Your task to perform on an android device: open app "Adobe Express: Graphic Design" (install if not already installed) and enter user name: "deliveries@gmail.com" and password: "regimentation" Image 0: 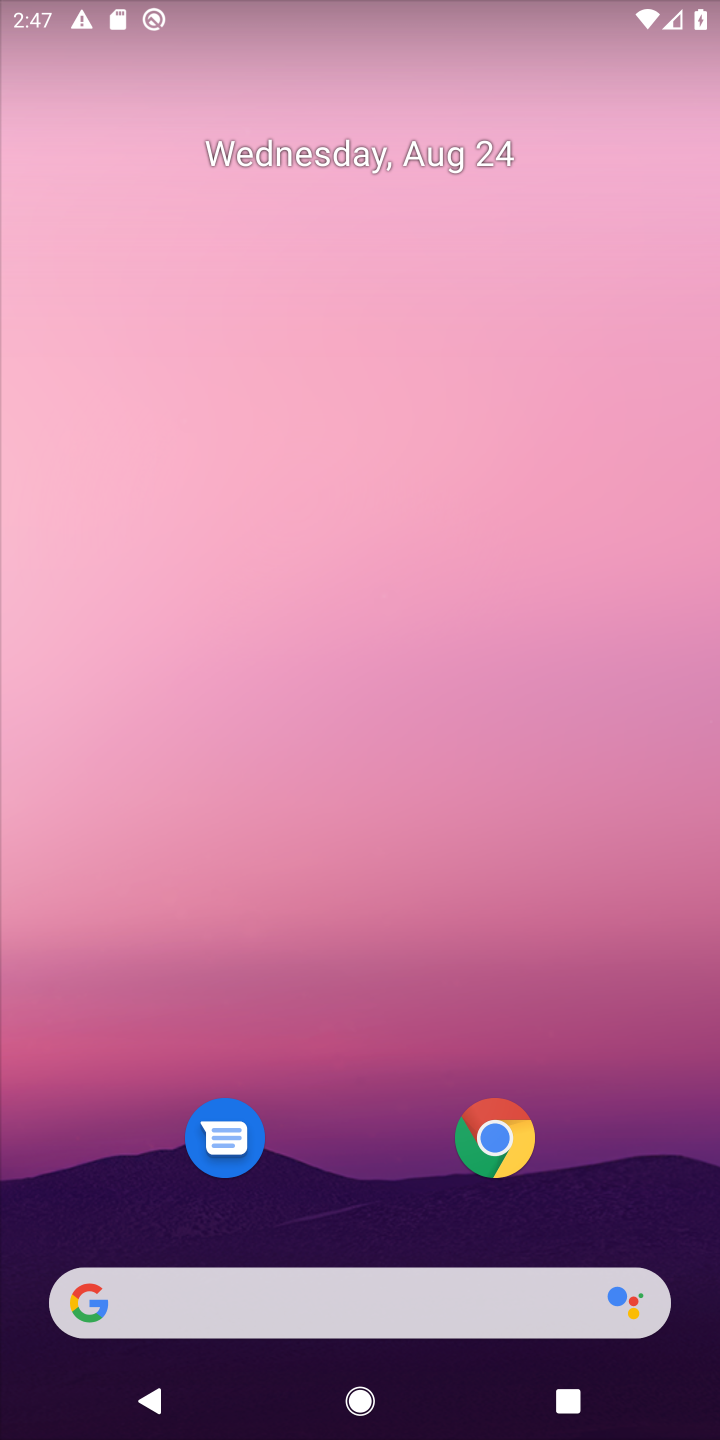
Step 0: drag from (301, 1236) to (332, 2)
Your task to perform on an android device: open app "Adobe Express: Graphic Design" (install if not already installed) and enter user name: "deliveries@gmail.com" and password: "regimentation" Image 1: 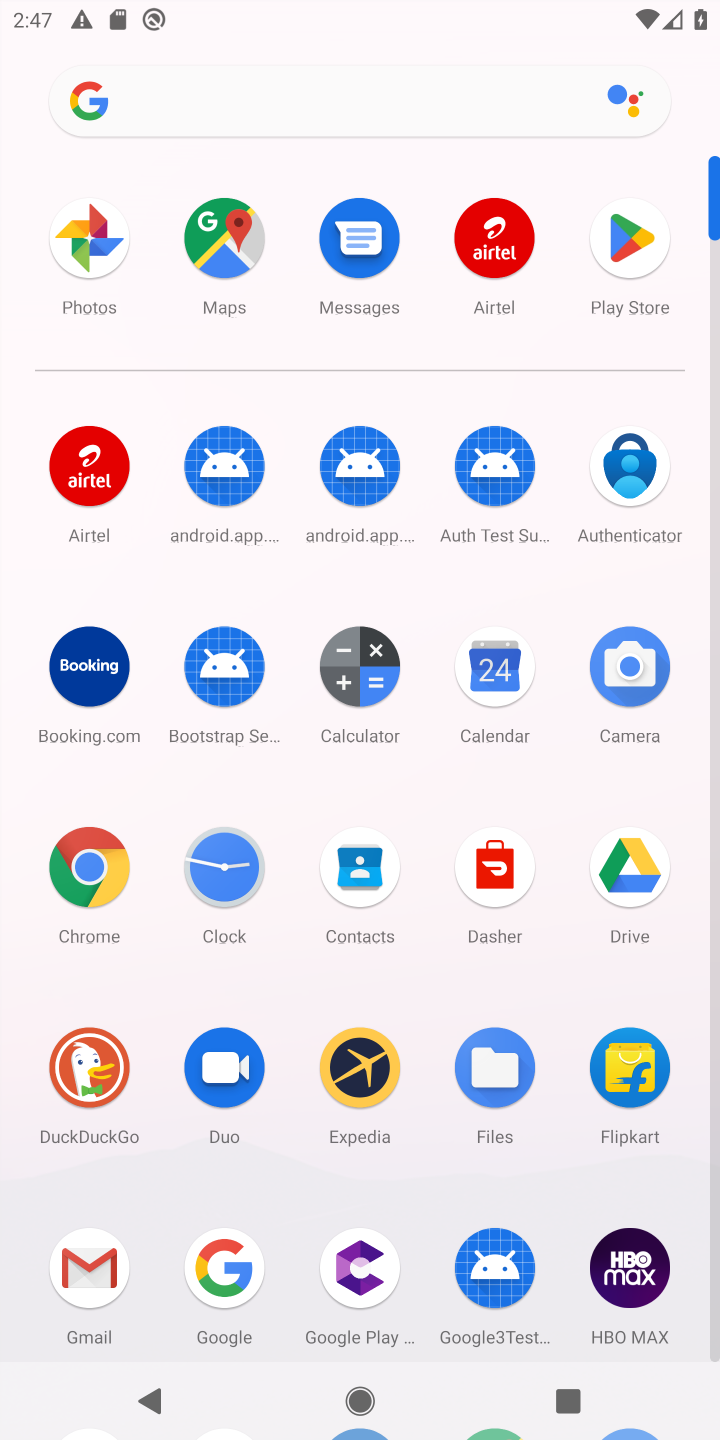
Step 1: click (621, 222)
Your task to perform on an android device: open app "Adobe Express: Graphic Design" (install if not already installed) and enter user name: "deliveries@gmail.com" and password: "regimentation" Image 2: 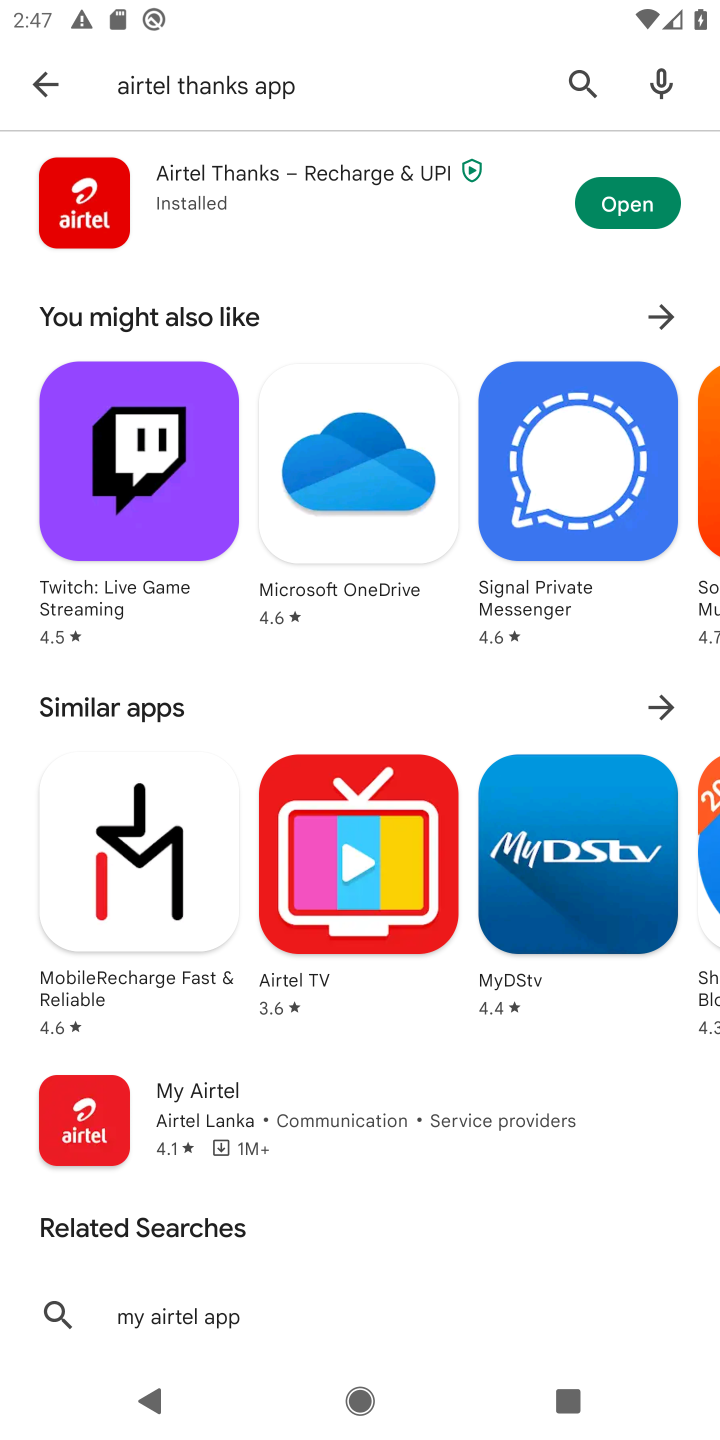
Step 2: click (576, 80)
Your task to perform on an android device: open app "Adobe Express: Graphic Design" (install if not already installed) and enter user name: "deliveries@gmail.com" and password: "regimentation" Image 3: 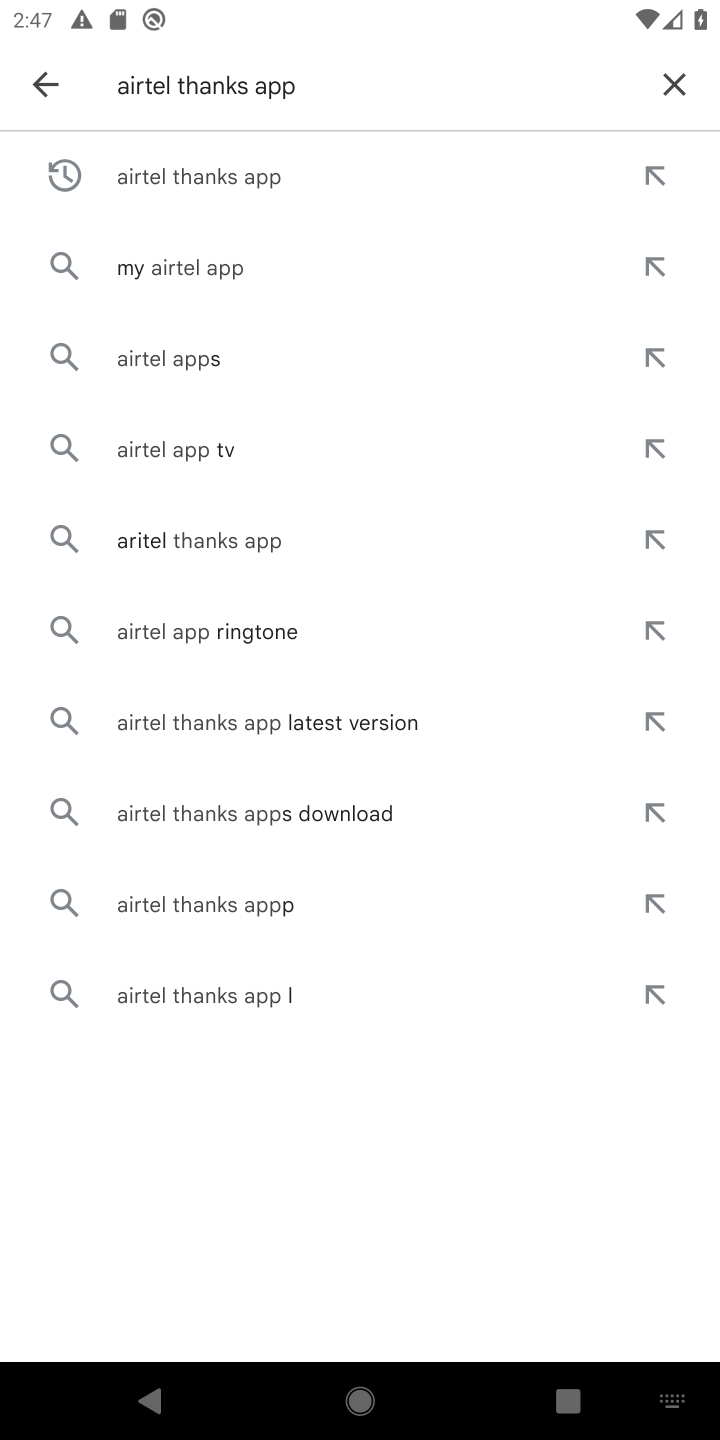
Step 3: click (681, 75)
Your task to perform on an android device: open app "Adobe Express: Graphic Design" (install if not already installed) and enter user name: "deliveries@gmail.com" and password: "regimentation" Image 4: 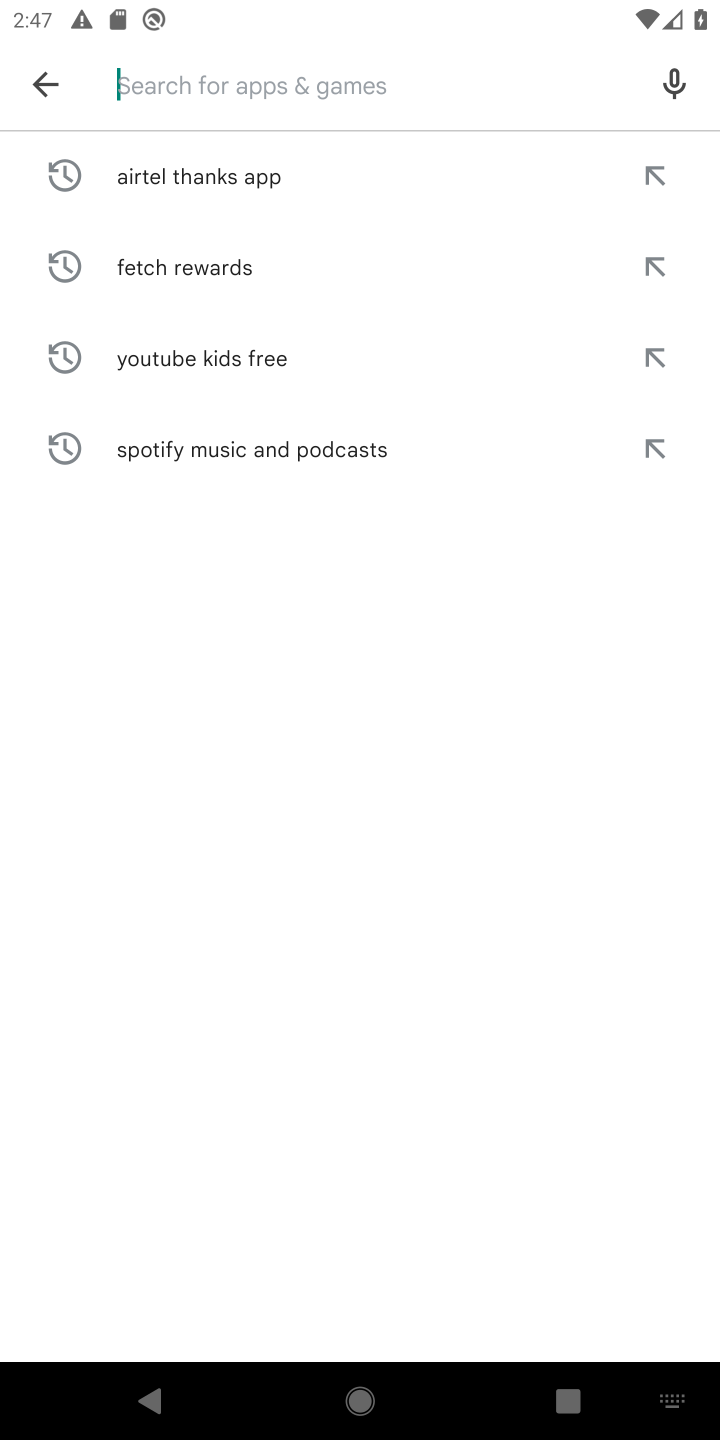
Step 4: type "Adobe Express: Graphic Design"
Your task to perform on an android device: open app "Adobe Express: Graphic Design" (install if not already installed) and enter user name: "deliveries@gmail.com" and password: "regimentation" Image 5: 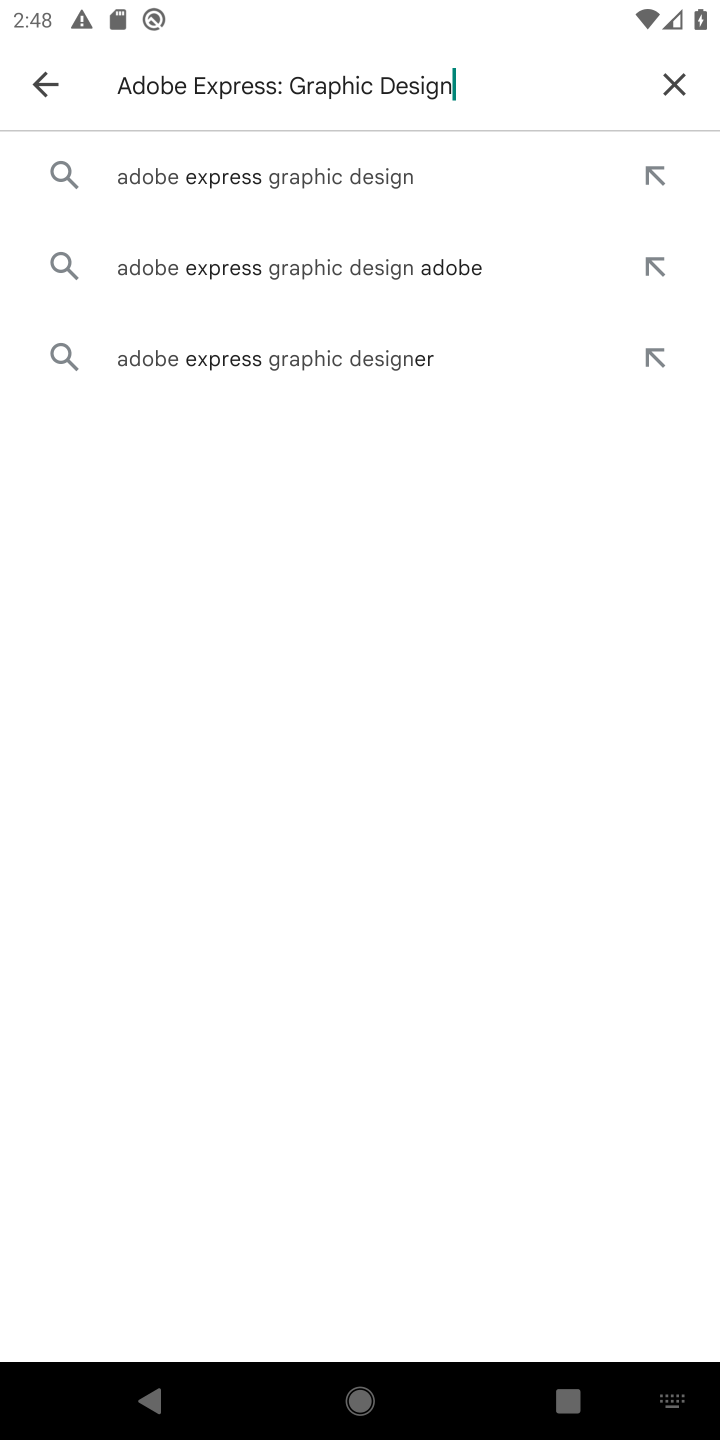
Step 5: click (351, 173)
Your task to perform on an android device: open app "Adobe Express: Graphic Design" (install if not already installed) and enter user name: "deliveries@gmail.com" and password: "regimentation" Image 6: 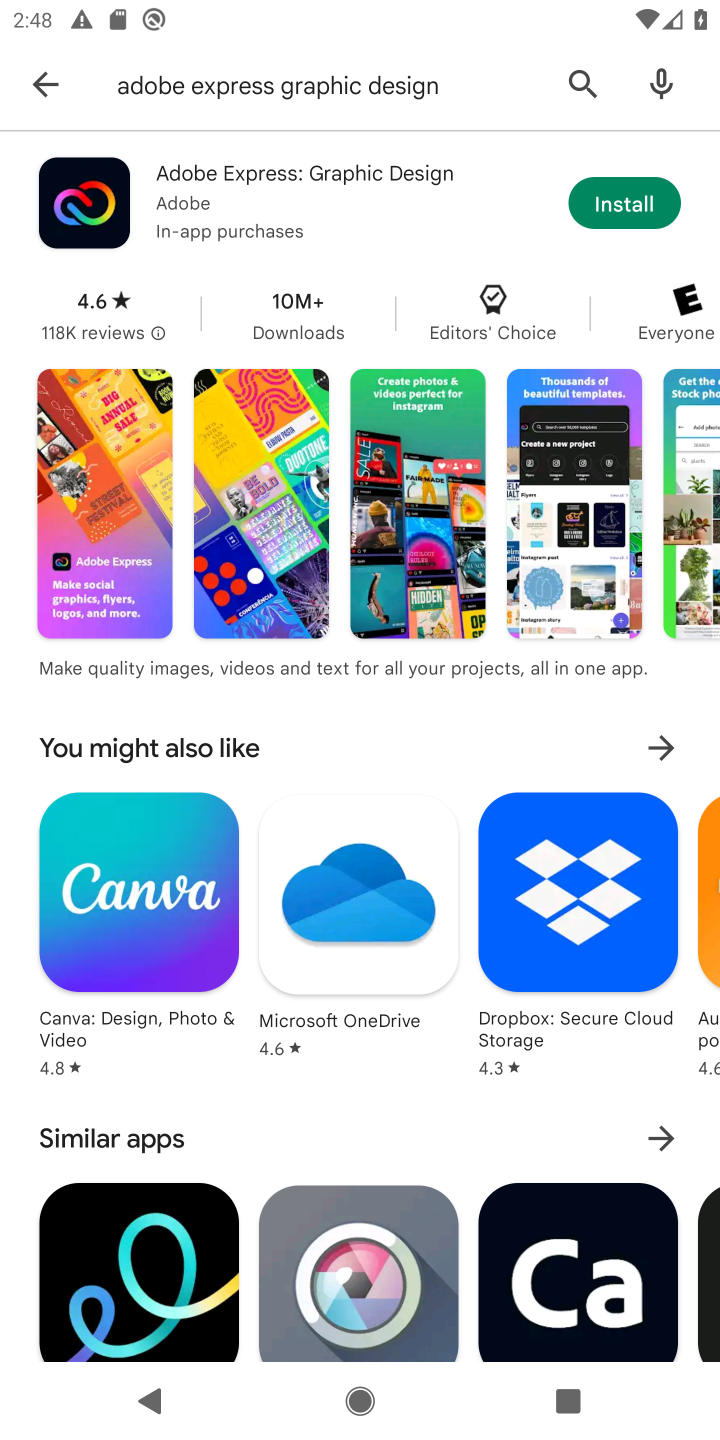
Step 6: click (624, 191)
Your task to perform on an android device: open app "Adobe Express: Graphic Design" (install if not already installed) and enter user name: "deliveries@gmail.com" and password: "regimentation" Image 7: 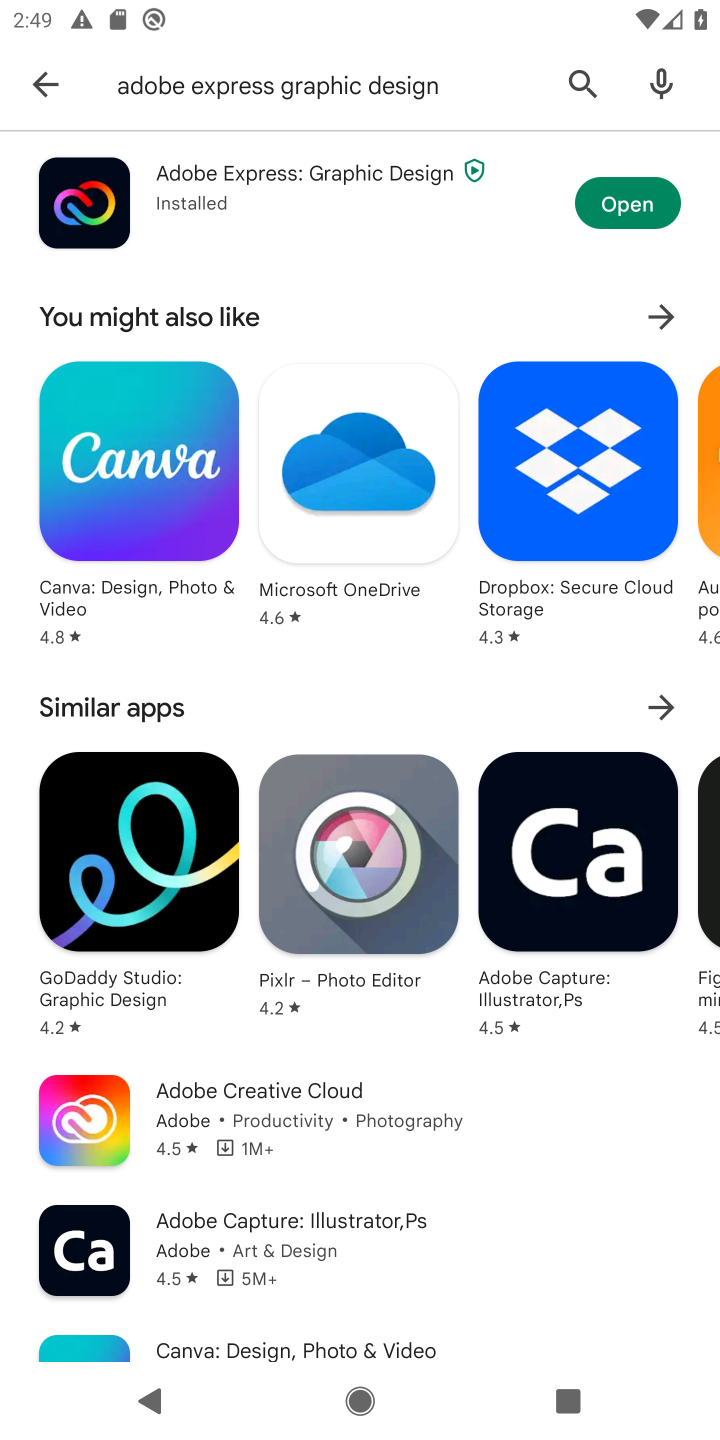
Step 7: click (622, 201)
Your task to perform on an android device: open app "Adobe Express: Graphic Design" (install if not already installed) and enter user name: "deliveries@gmail.com" and password: "regimentation" Image 8: 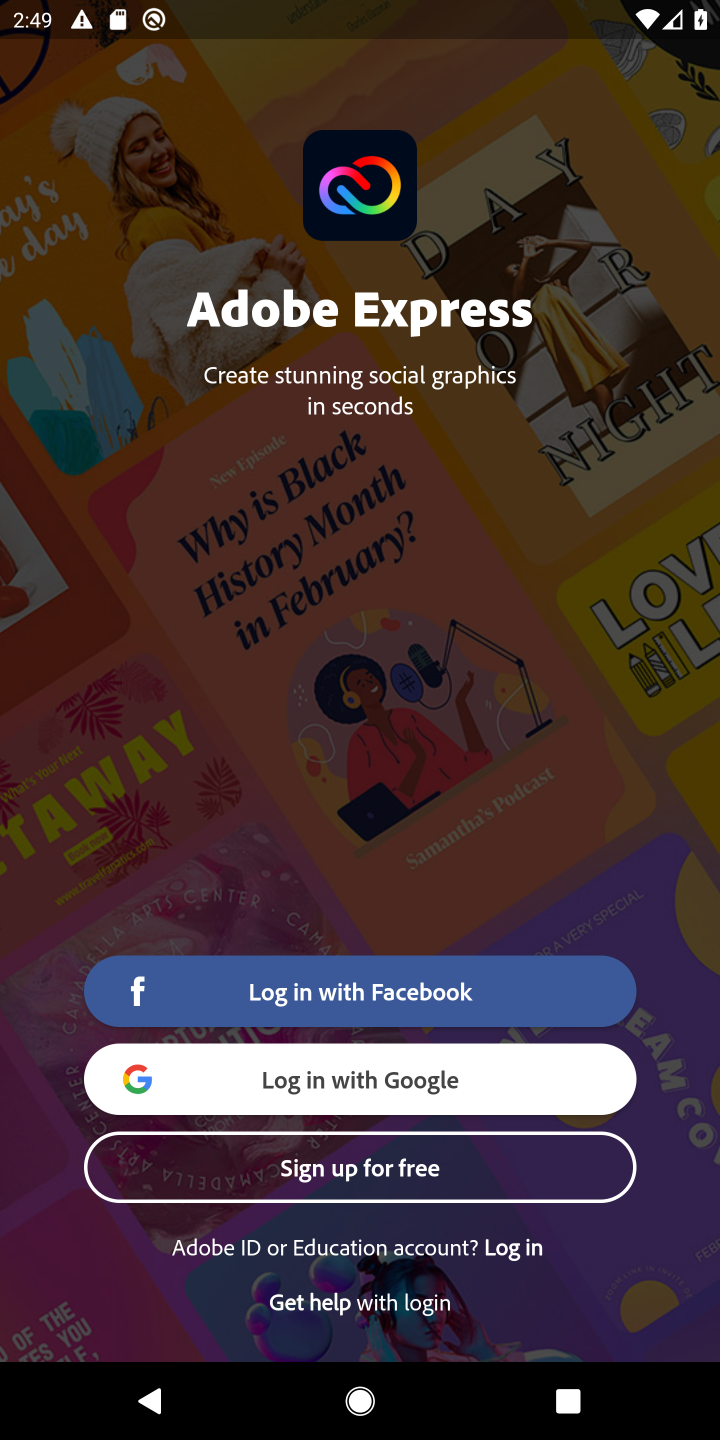
Step 8: click (370, 1073)
Your task to perform on an android device: open app "Adobe Express: Graphic Design" (install if not already installed) and enter user name: "deliveries@gmail.com" and password: "regimentation" Image 9: 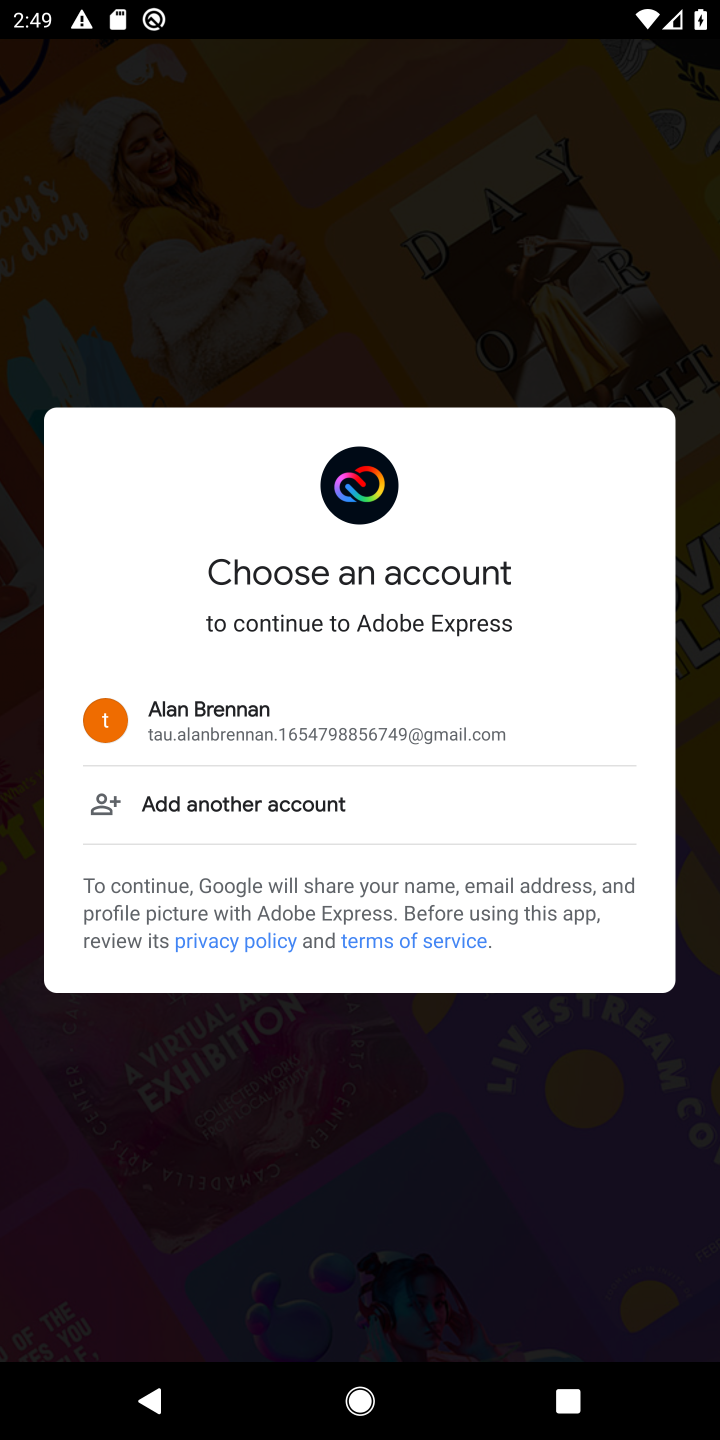
Step 9: click (349, 804)
Your task to perform on an android device: open app "Adobe Express: Graphic Design" (install if not already installed) and enter user name: "deliveries@gmail.com" and password: "regimentation" Image 10: 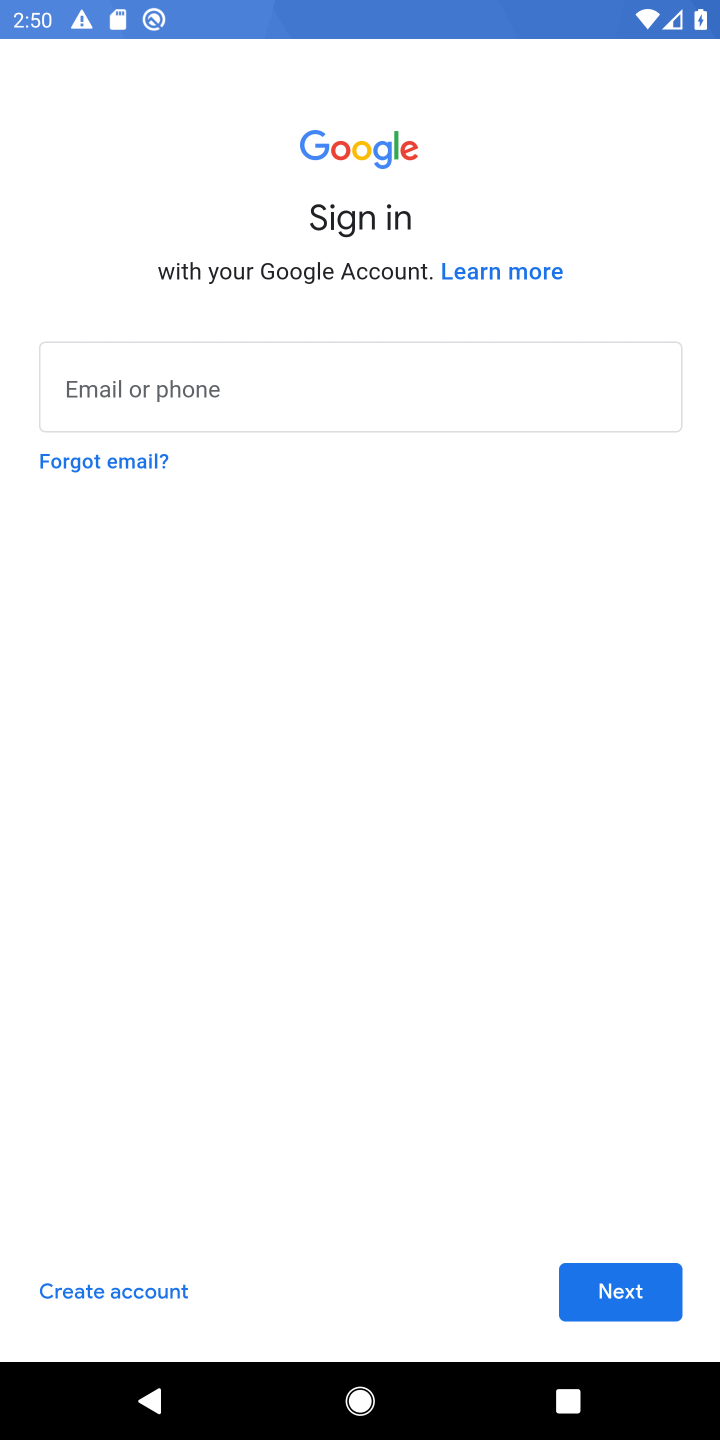
Step 10: click (474, 391)
Your task to perform on an android device: open app "Adobe Express: Graphic Design" (install if not already installed) and enter user name: "deliveries@gmail.com" and password: "regimentation" Image 11: 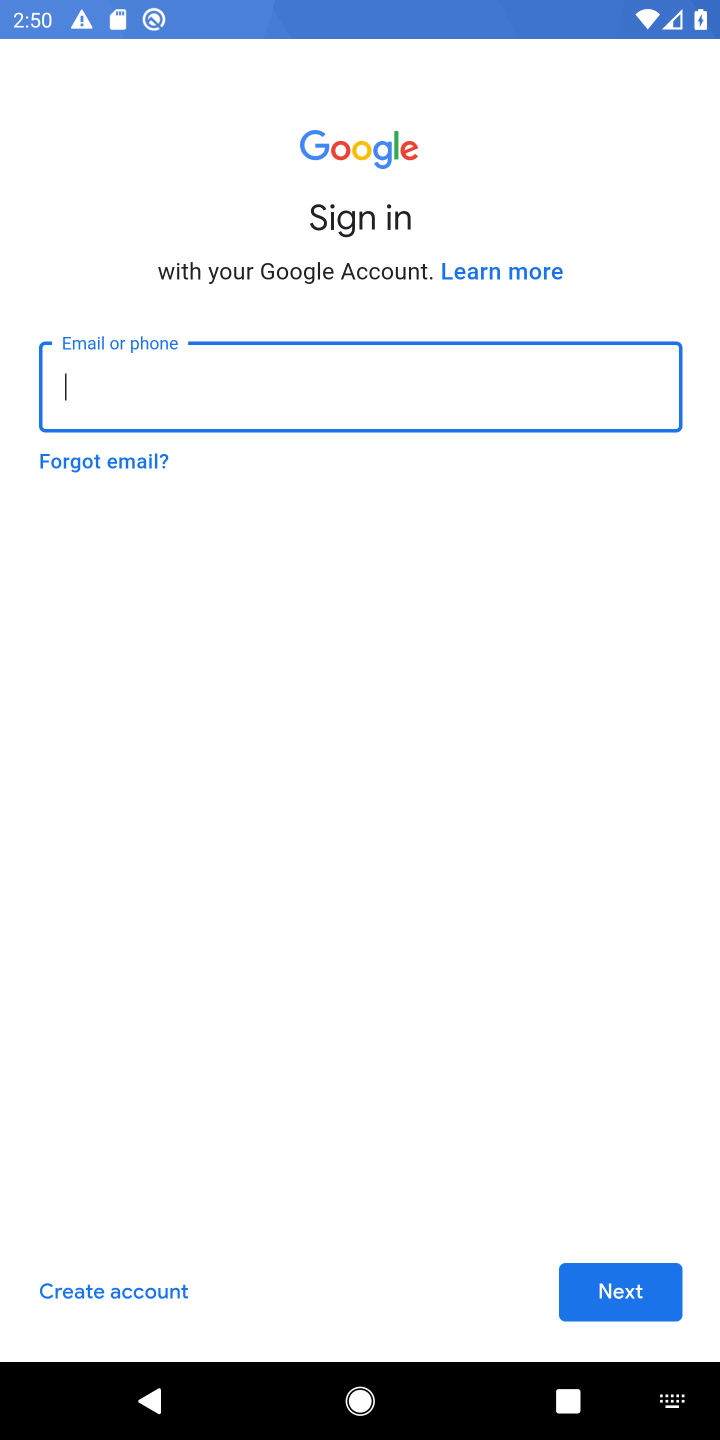
Step 11: type "deliveries@gmail.com"
Your task to perform on an android device: open app "Adobe Express: Graphic Design" (install if not already installed) and enter user name: "deliveries@gmail.com" and password: "regimentation" Image 12: 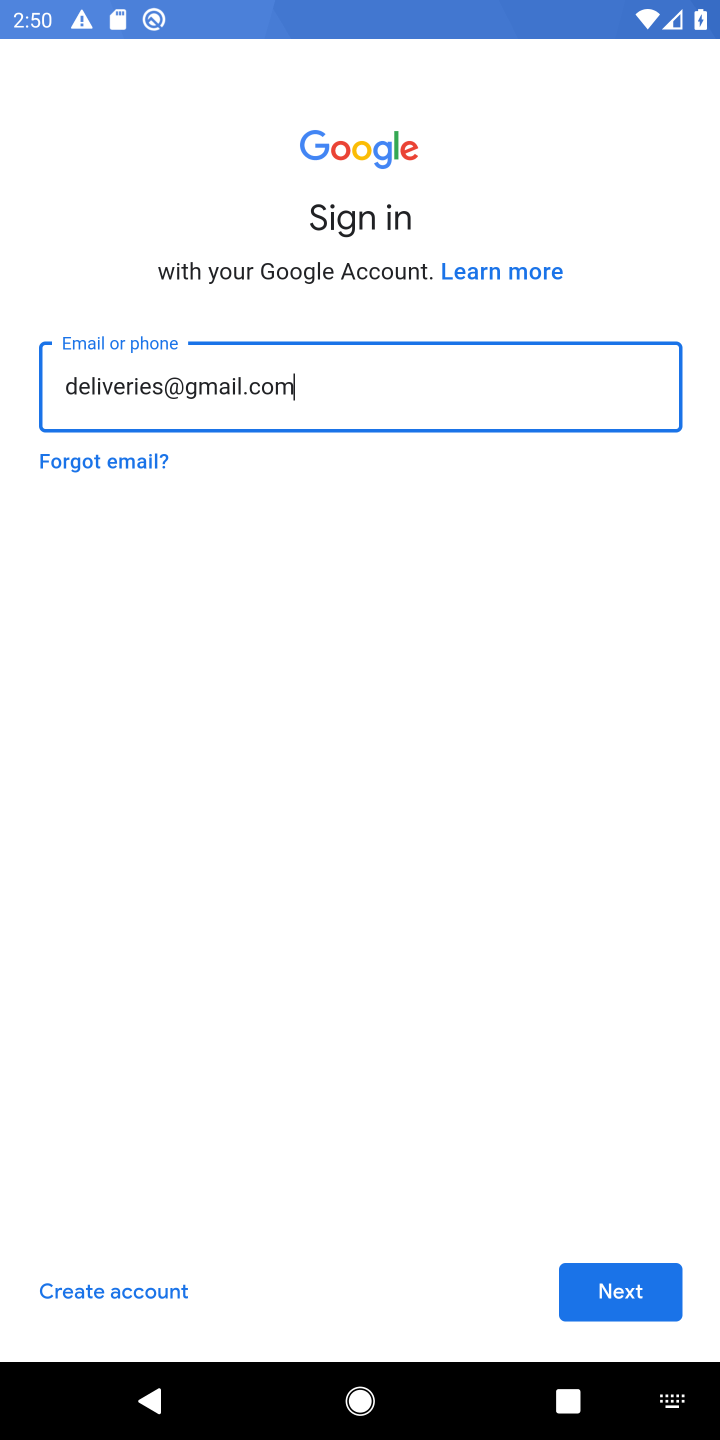
Step 12: click (588, 1292)
Your task to perform on an android device: open app "Adobe Express: Graphic Design" (install if not already installed) and enter user name: "deliveries@gmail.com" and password: "regimentation" Image 13: 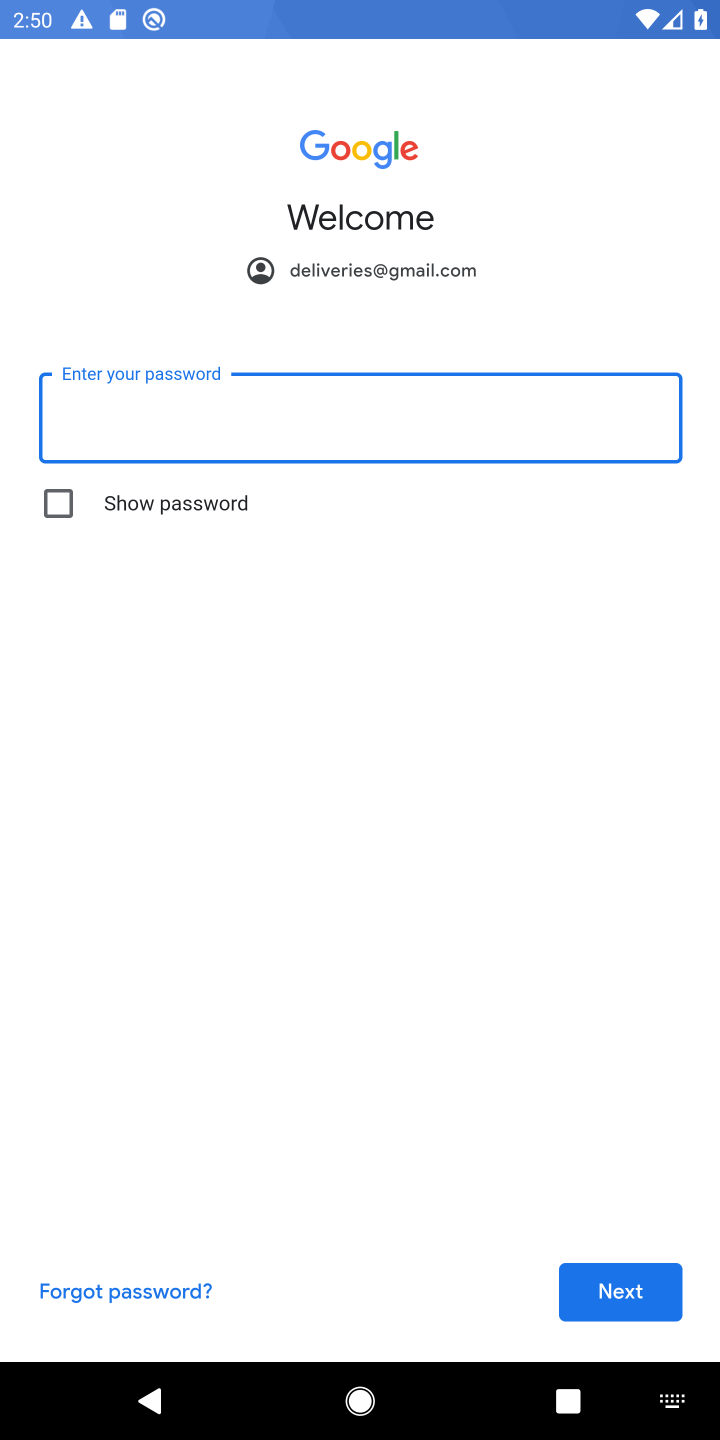
Step 13: type "regimentation"
Your task to perform on an android device: open app "Adobe Express: Graphic Design" (install if not already installed) and enter user name: "deliveries@gmail.com" and password: "regimentation" Image 14: 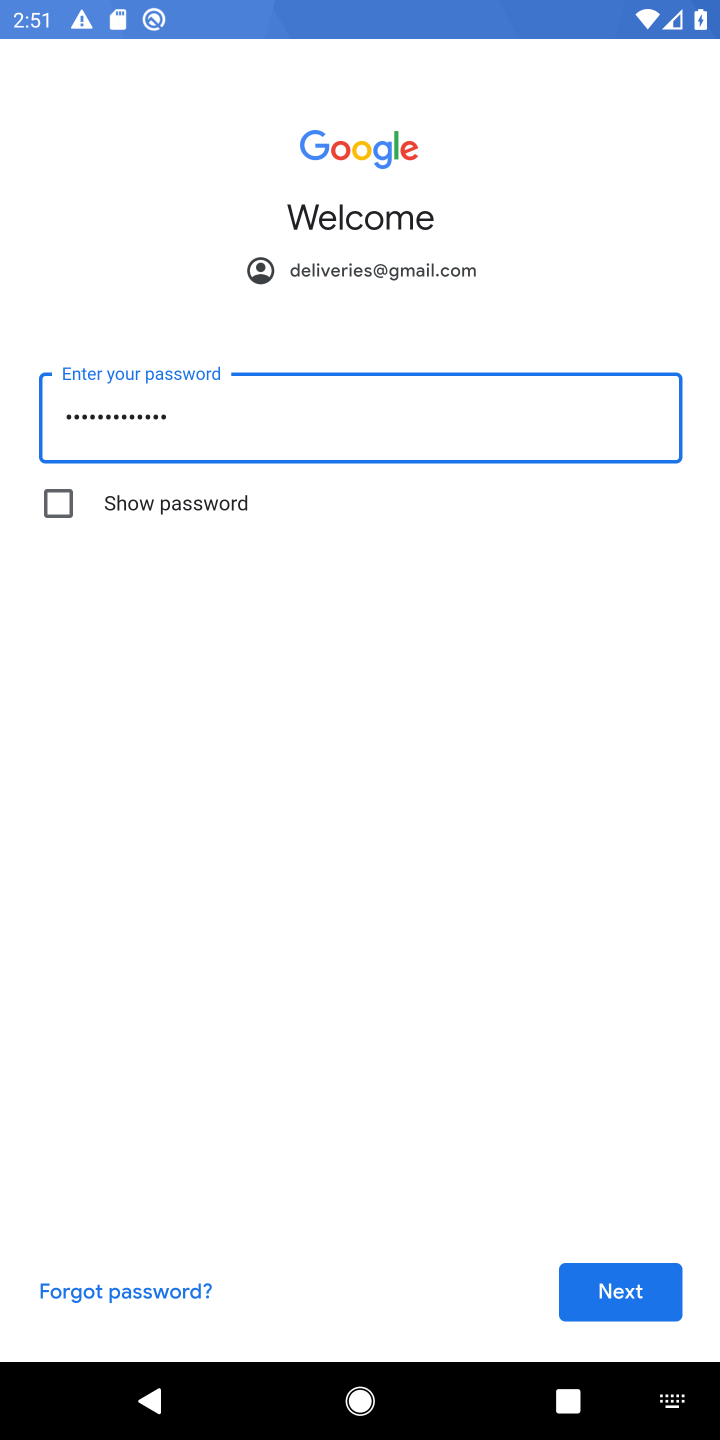
Step 14: task complete